Your task to perform on an android device: turn on priority inbox in the gmail app Image 0: 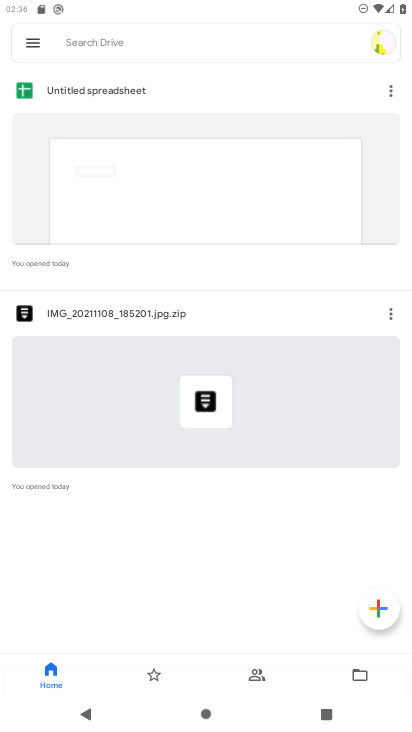
Step 0: press home button
Your task to perform on an android device: turn on priority inbox in the gmail app Image 1: 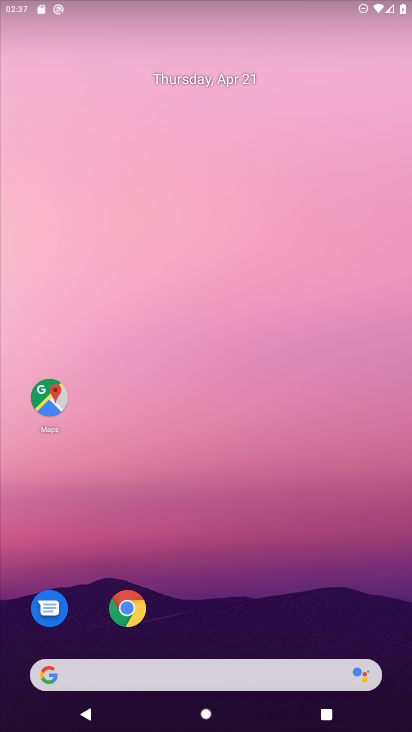
Step 1: drag from (293, 627) to (312, 192)
Your task to perform on an android device: turn on priority inbox in the gmail app Image 2: 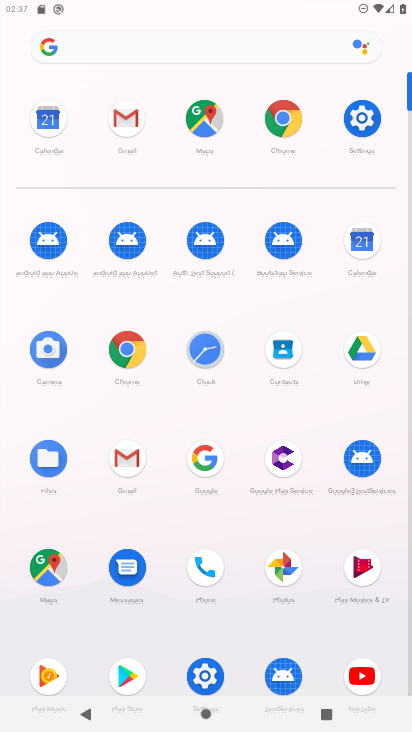
Step 2: click (111, 462)
Your task to perform on an android device: turn on priority inbox in the gmail app Image 3: 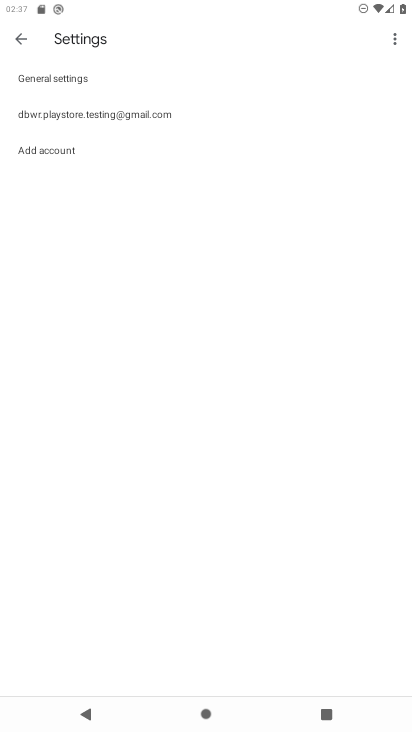
Step 3: click (130, 101)
Your task to perform on an android device: turn on priority inbox in the gmail app Image 4: 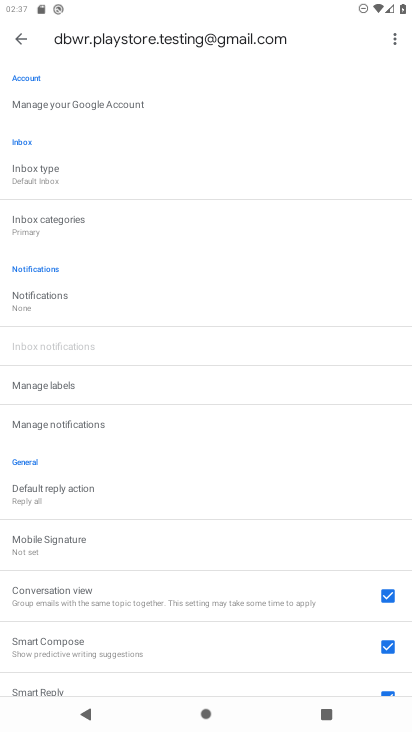
Step 4: click (65, 184)
Your task to perform on an android device: turn on priority inbox in the gmail app Image 5: 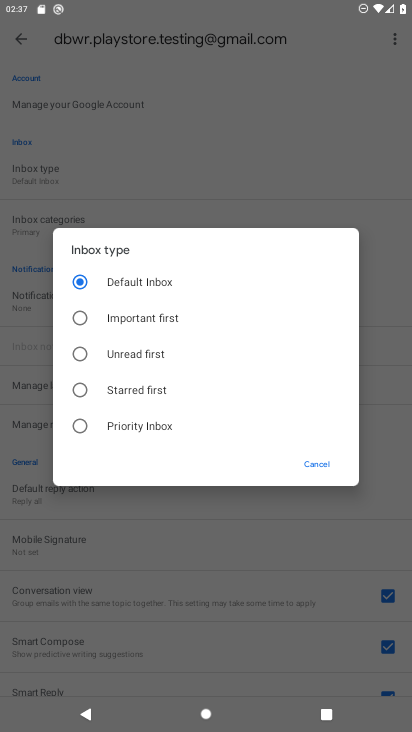
Step 5: click (159, 422)
Your task to perform on an android device: turn on priority inbox in the gmail app Image 6: 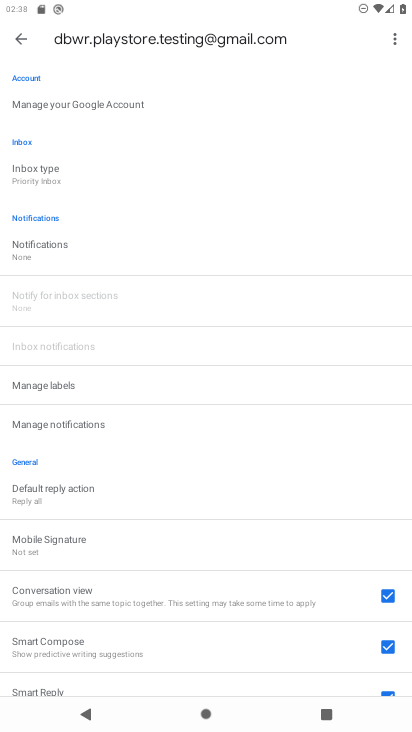
Step 6: task complete